Your task to perform on an android device: search for starred emails in the gmail app Image 0: 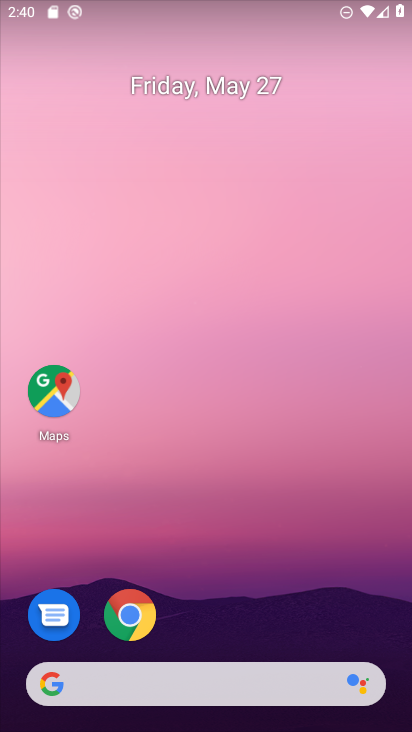
Step 0: drag from (284, 473) to (192, 10)
Your task to perform on an android device: search for starred emails in the gmail app Image 1: 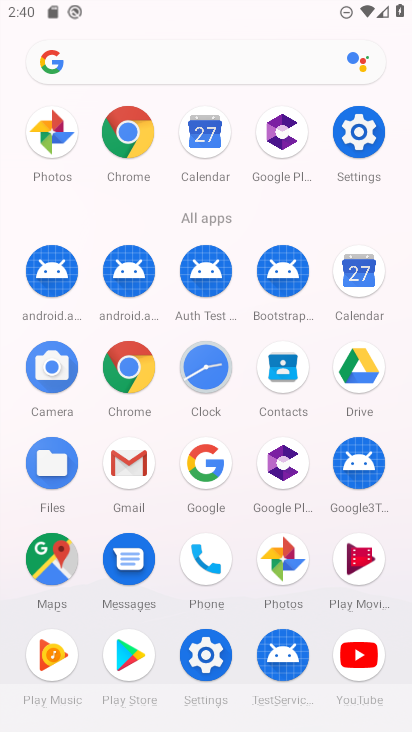
Step 1: click (120, 467)
Your task to perform on an android device: search for starred emails in the gmail app Image 2: 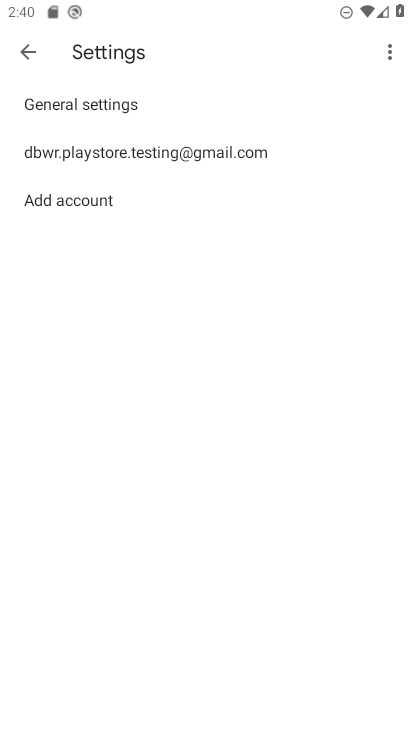
Step 2: click (25, 53)
Your task to perform on an android device: search for starred emails in the gmail app Image 3: 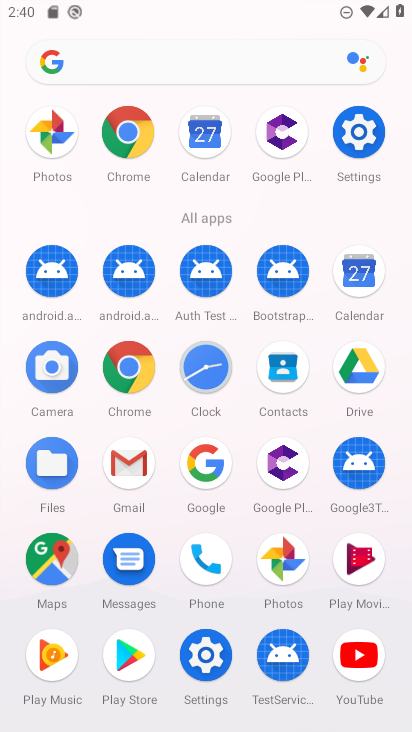
Step 3: click (130, 471)
Your task to perform on an android device: search for starred emails in the gmail app Image 4: 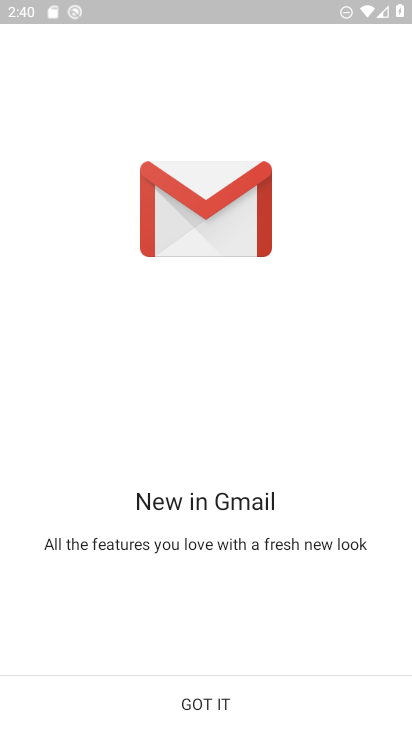
Step 4: click (222, 701)
Your task to perform on an android device: search for starred emails in the gmail app Image 5: 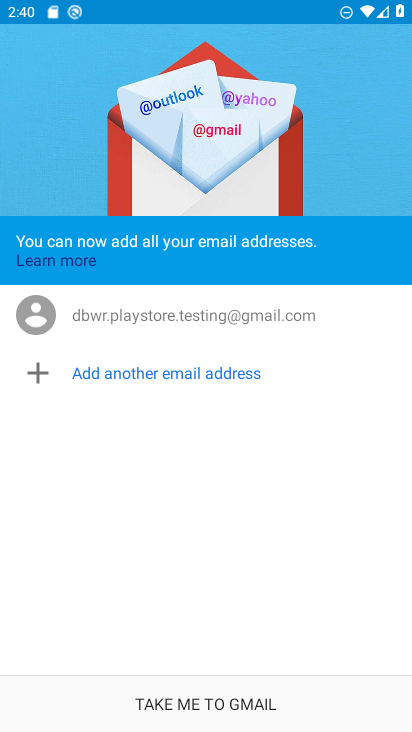
Step 5: click (222, 691)
Your task to perform on an android device: search for starred emails in the gmail app Image 6: 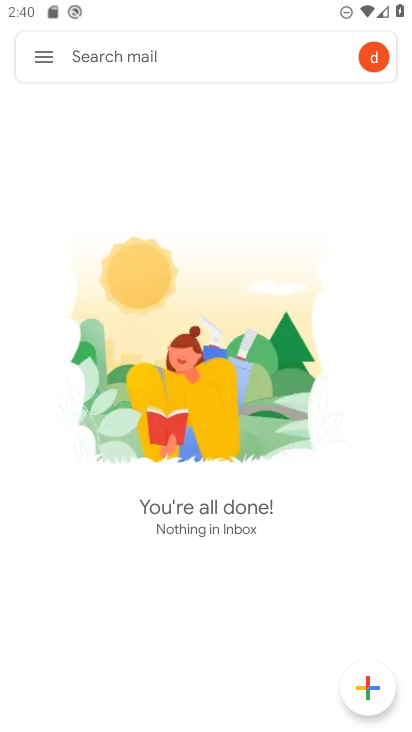
Step 6: click (133, 63)
Your task to perform on an android device: search for starred emails in the gmail app Image 7: 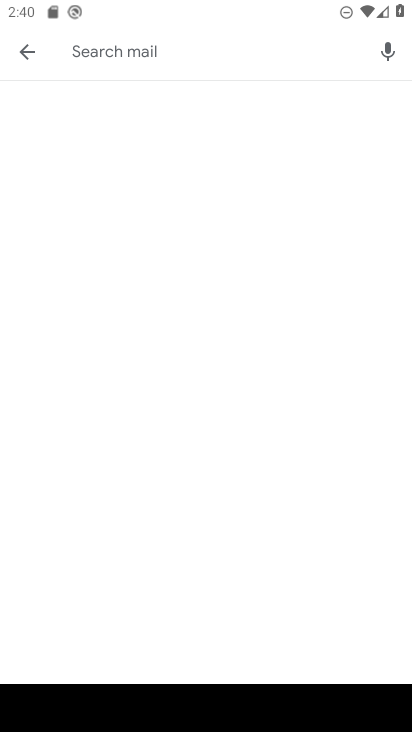
Step 7: type "starred"
Your task to perform on an android device: search for starred emails in the gmail app Image 8: 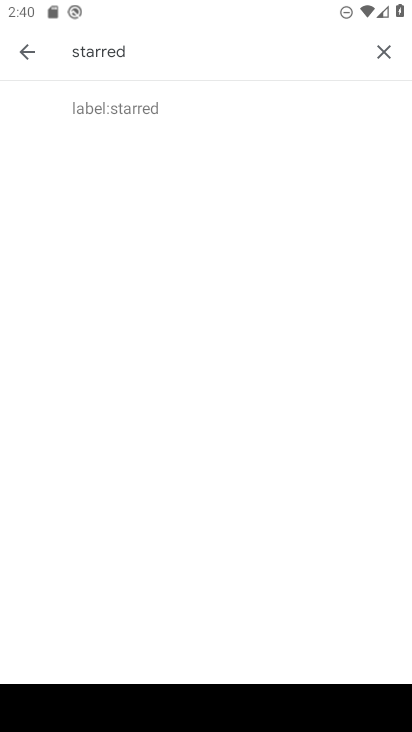
Step 8: click (92, 108)
Your task to perform on an android device: search for starred emails in the gmail app Image 9: 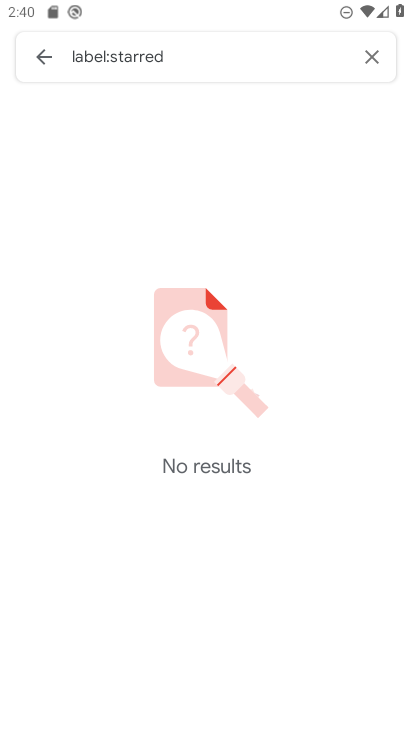
Step 9: task complete